Your task to perform on an android device: toggle sleep mode Image 0: 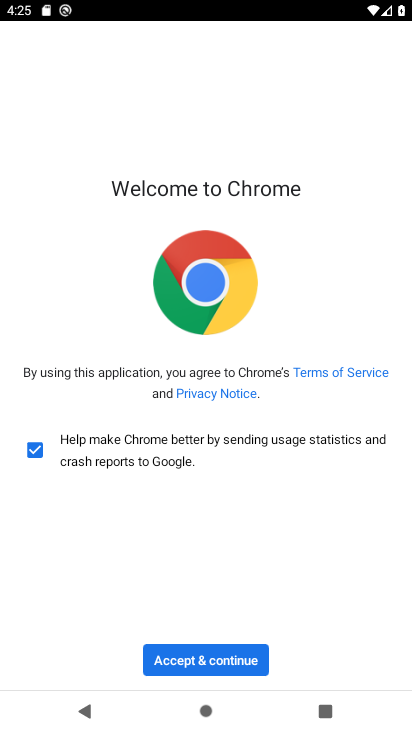
Step 0: press home button
Your task to perform on an android device: toggle sleep mode Image 1: 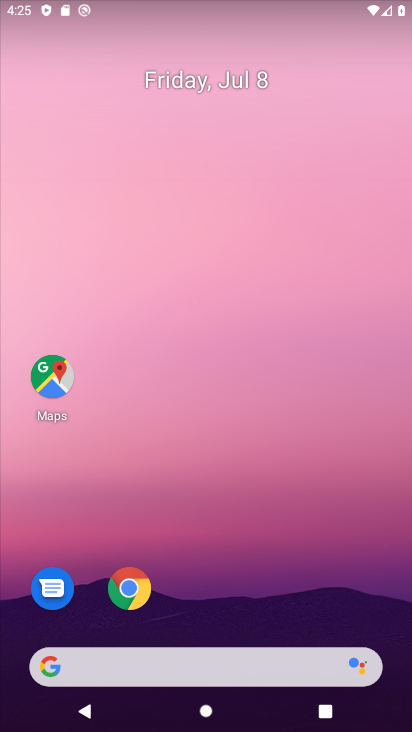
Step 1: drag from (280, 570) to (274, 0)
Your task to perform on an android device: toggle sleep mode Image 2: 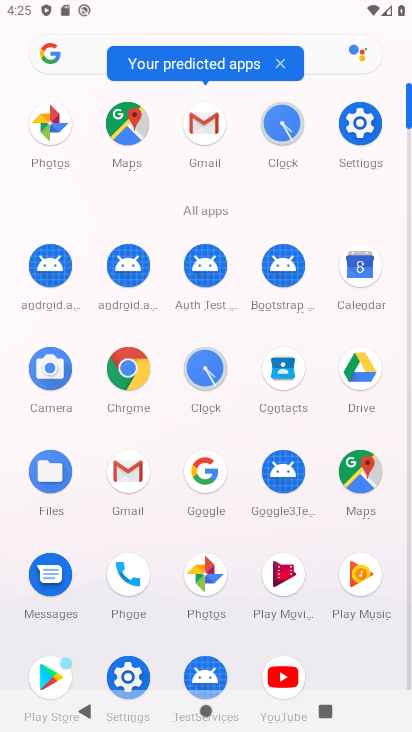
Step 2: click (366, 128)
Your task to perform on an android device: toggle sleep mode Image 3: 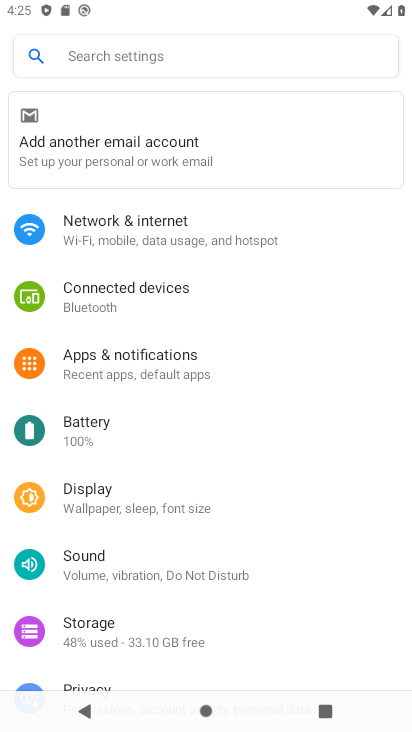
Step 3: click (205, 59)
Your task to perform on an android device: toggle sleep mode Image 4: 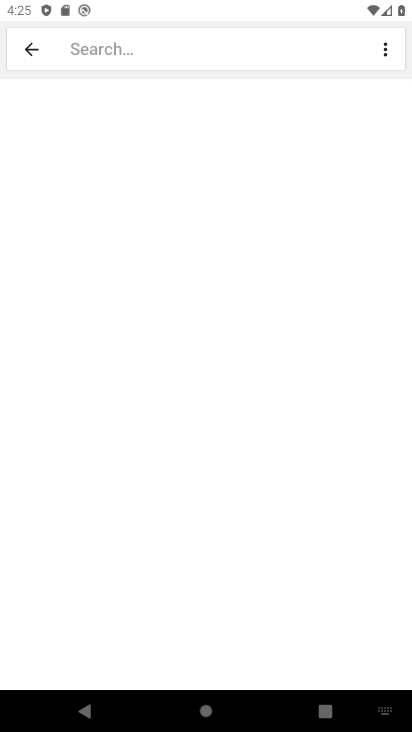
Step 4: type "sleep mode"
Your task to perform on an android device: toggle sleep mode Image 5: 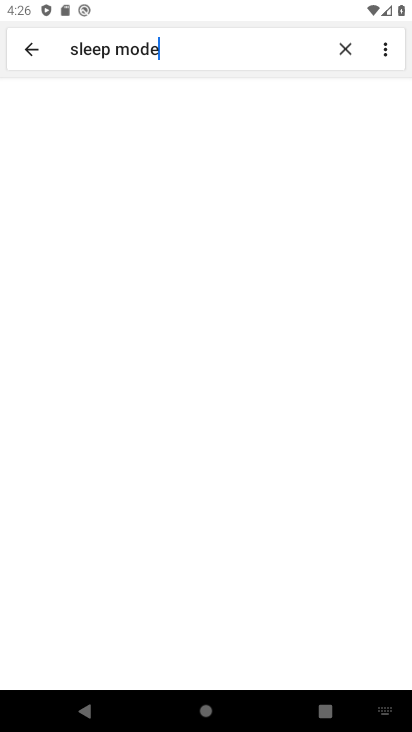
Step 5: task complete